Your task to perform on an android device: change text size in settings app Image 0: 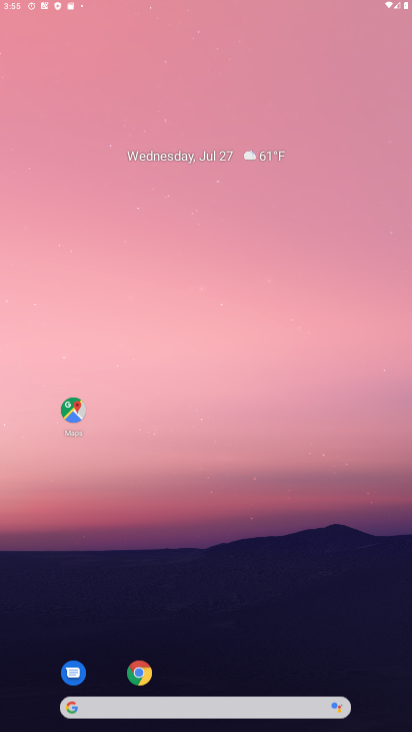
Step 0: click (221, 6)
Your task to perform on an android device: change text size in settings app Image 1: 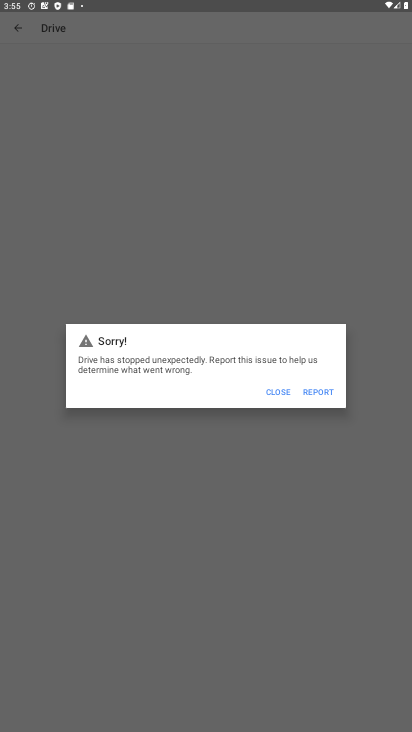
Step 1: press home button
Your task to perform on an android device: change text size in settings app Image 2: 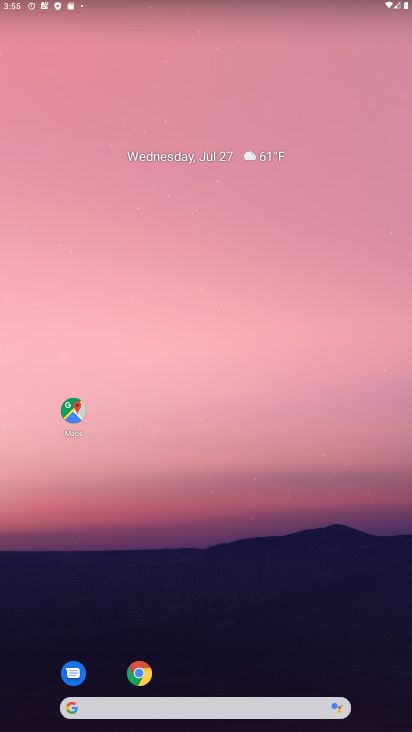
Step 2: drag from (43, 690) to (213, 55)
Your task to perform on an android device: change text size in settings app Image 3: 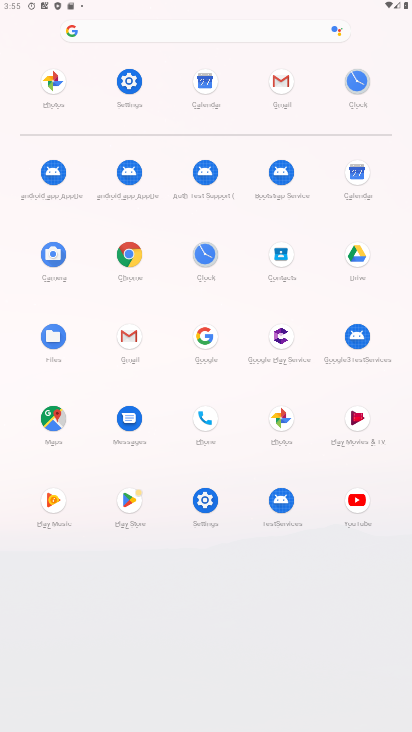
Step 3: click (200, 489)
Your task to perform on an android device: change text size in settings app Image 4: 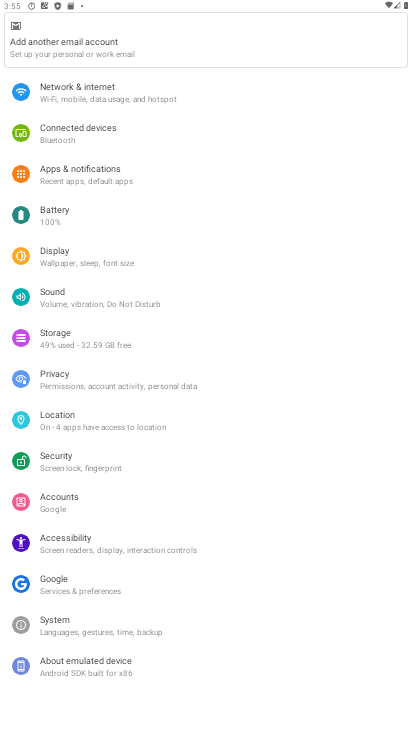
Step 4: click (111, 261)
Your task to perform on an android device: change text size in settings app Image 5: 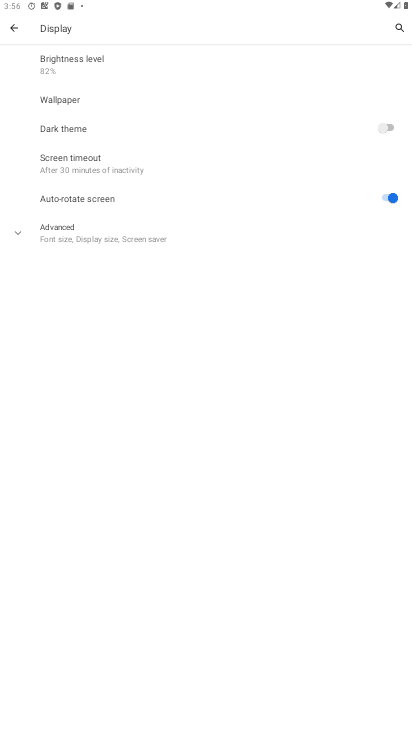
Step 5: click (103, 225)
Your task to perform on an android device: change text size in settings app Image 6: 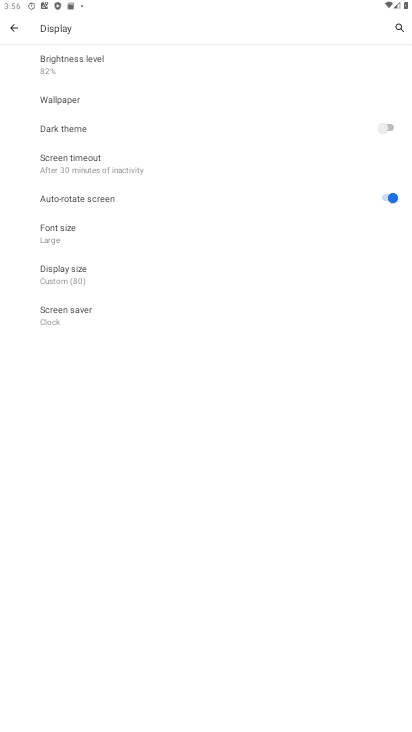
Step 6: click (52, 223)
Your task to perform on an android device: change text size in settings app Image 7: 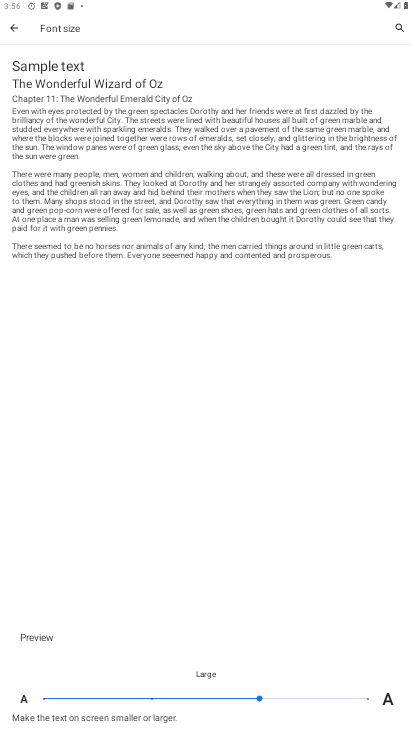
Step 7: click (279, 698)
Your task to perform on an android device: change text size in settings app Image 8: 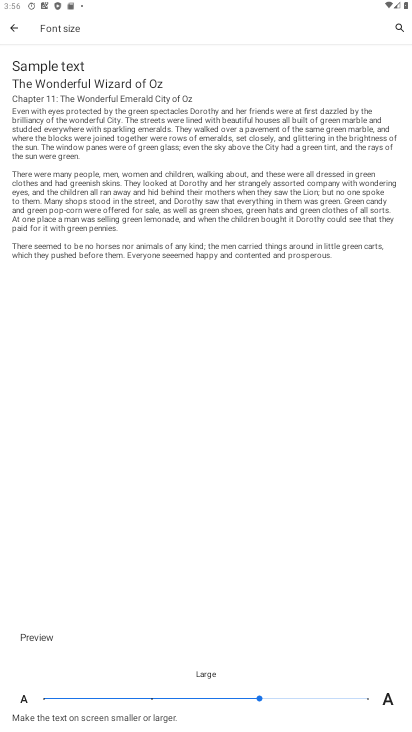
Step 8: click (274, 693)
Your task to perform on an android device: change text size in settings app Image 9: 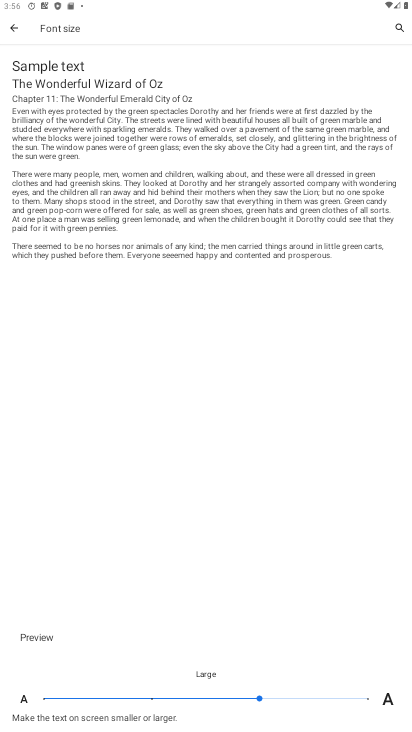
Step 9: click (266, 695)
Your task to perform on an android device: change text size in settings app Image 10: 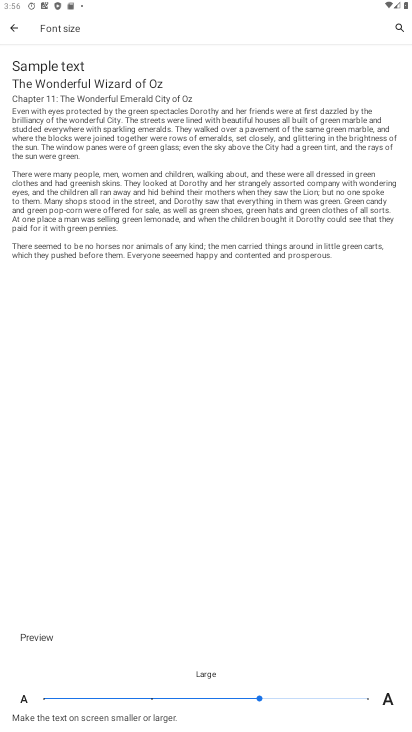
Step 10: click (290, 694)
Your task to perform on an android device: change text size in settings app Image 11: 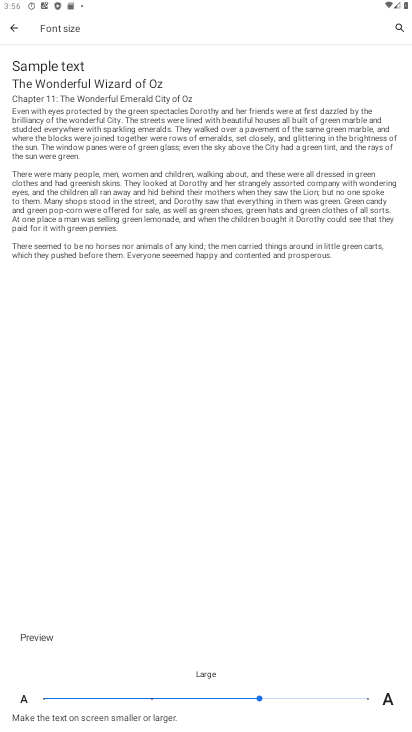
Step 11: task complete